Your task to perform on an android device: search for starred emails in the gmail app Image 0: 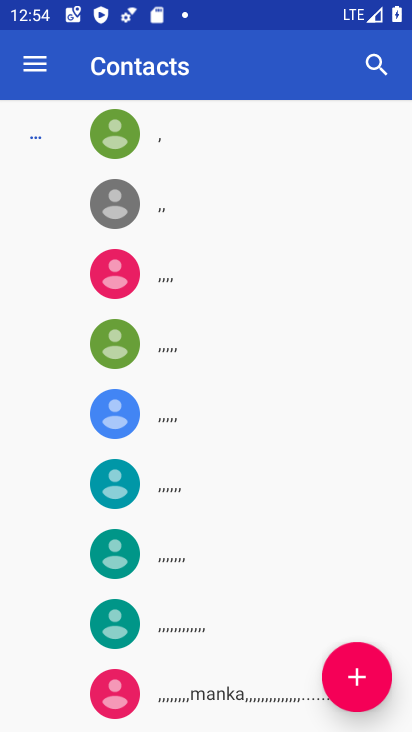
Step 0: press home button
Your task to perform on an android device: search for starred emails in the gmail app Image 1: 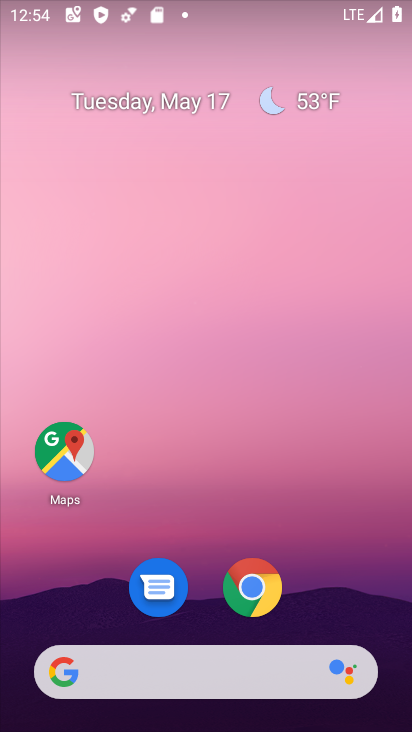
Step 1: click (61, 459)
Your task to perform on an android device: search for starred emails in the gmail app Image 2: 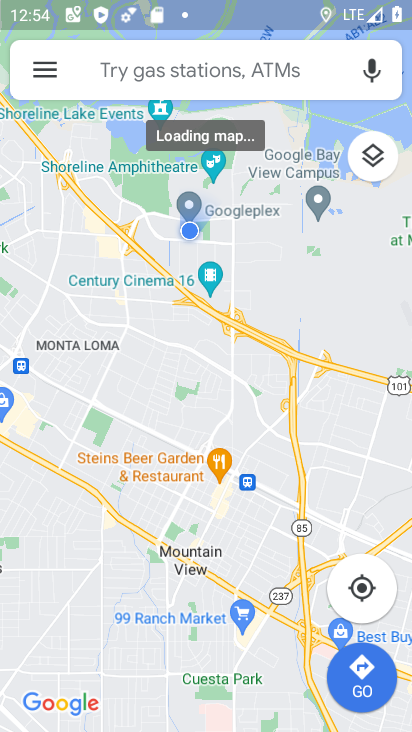
Step 2: press home button
Your task to perform on an android device: search for starred emails in the gmail app Image 3: 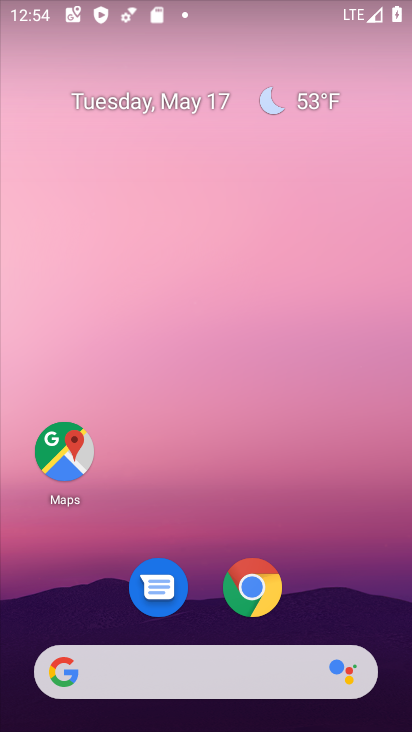
Step 3: drag from (217, 617) to (174, 92)
Your task to perform on an android device: search for starred emails in the gmail app Image 4: 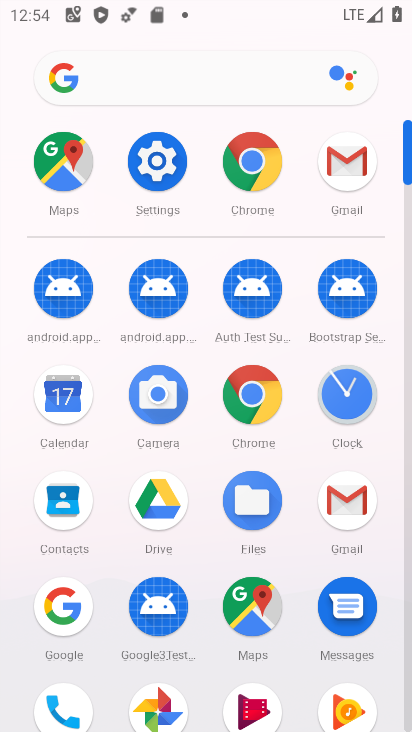
Step 4: click (349, 504)
Your task to perform on an android device: search for starred emails in the gmail app Image 5: 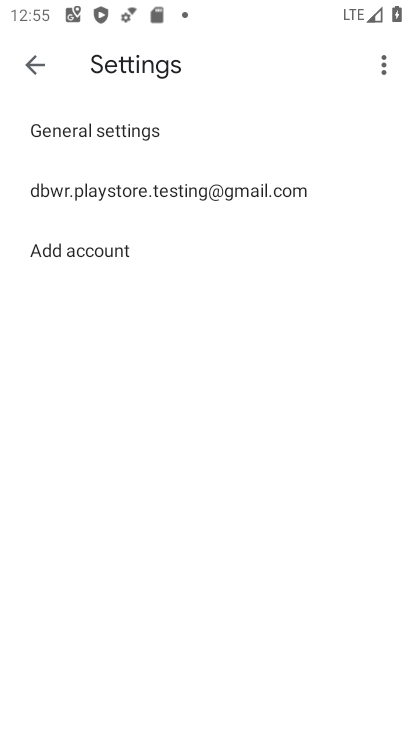
Step 5: click (34, 63)
Your task to perform on an android device: search for starred emails in the gmail app Image 6: 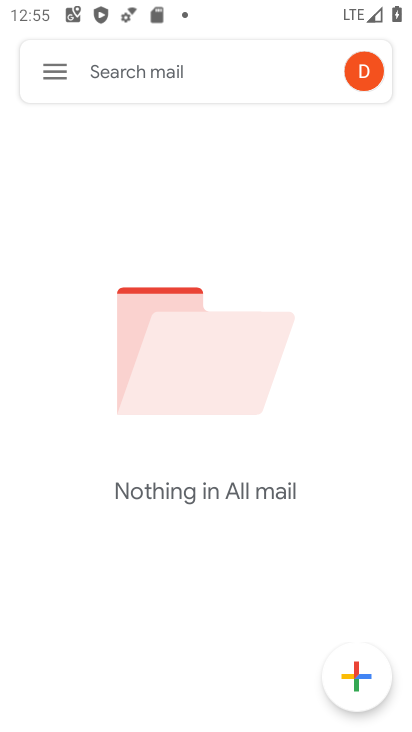
Step 6: click (34, 63)
Your task to perform on an android device: search for starred emails in the gmail app Image 7: 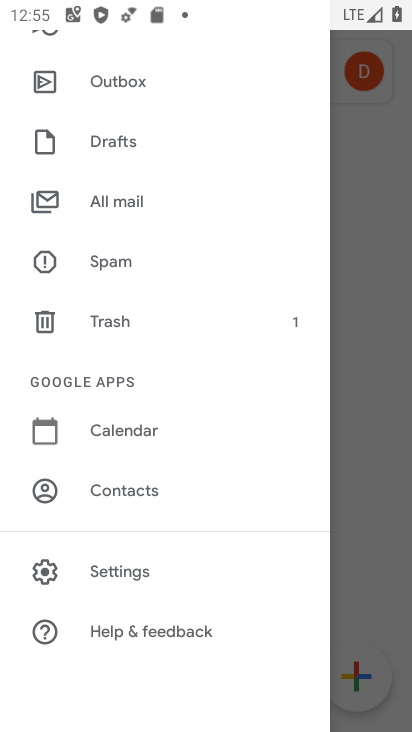
Step 7: drag from (91, 135) to (116, 361)
Your task to perform on an android device: search for starred emails in the gmail app Image 8: 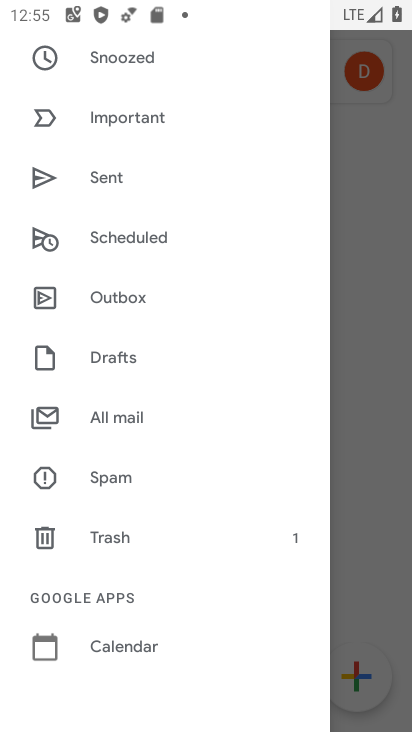
Step 8: drag from (127, 228) to (134, 432)
Your task to perform on an android device: search for starred emails in the gmail app Image 9: 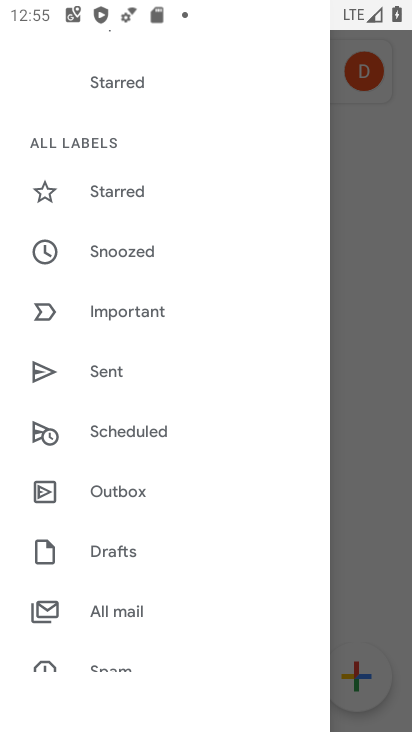
Step 9: click (115, 208)
Your task to perform on an android device: search for starred emails in the gmail app Image 10: 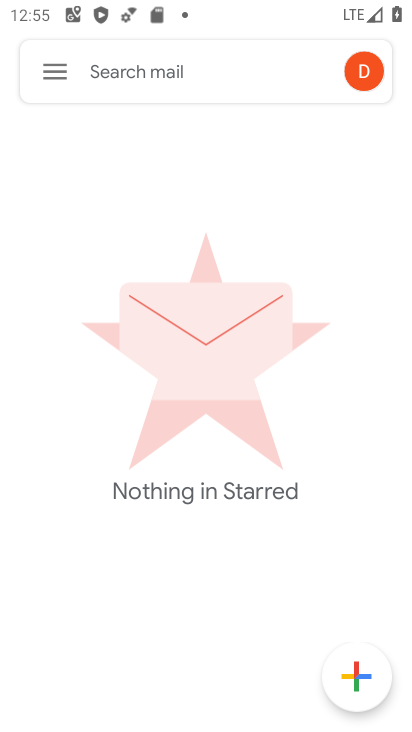
Step 10: task complete